Your task to perform on an android device: Find coffee shops on Maps Image 0: 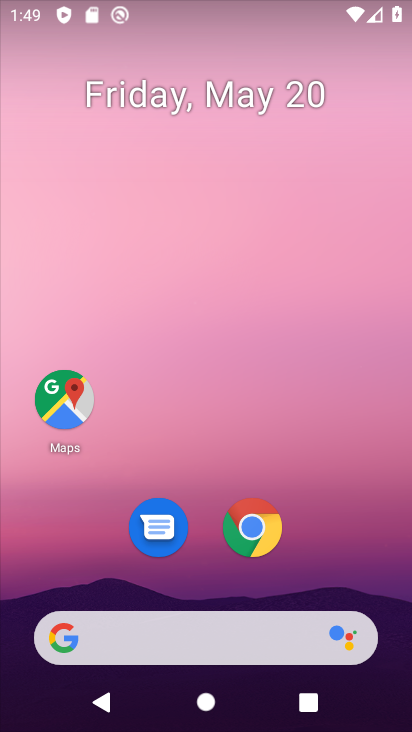
Step 0: click (75, 397)
Your task to perform on an android device: Find coffee shops on Maps Image 1: 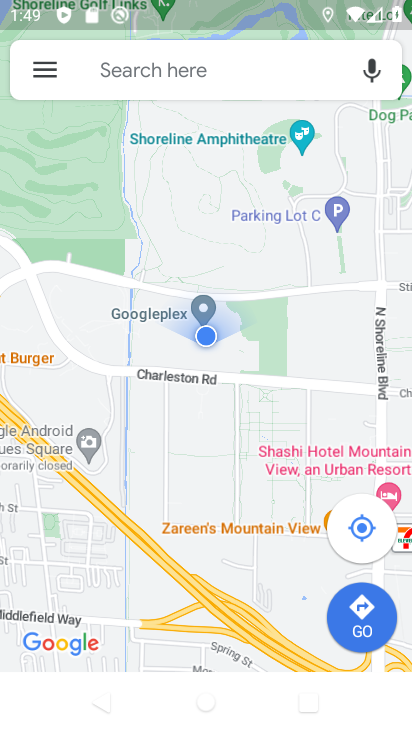
Step 1: click (178, 64)
Your task to perform on an android device: Find coffee shops on Maps Image 2: 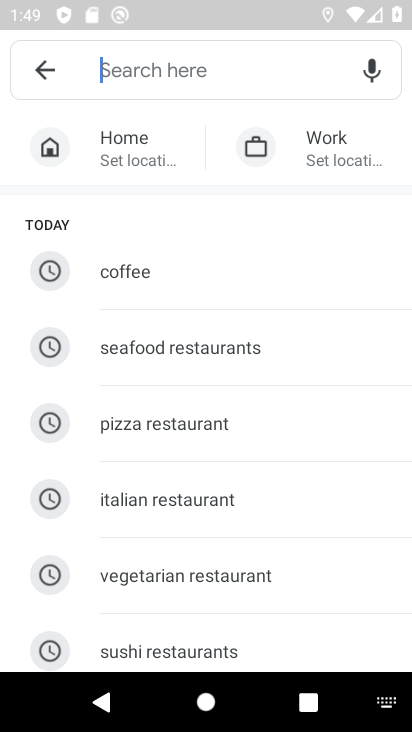
Step 2: click (129, 258)
Your task to perform on an android device: Find coffee shops on Maps Image 3: 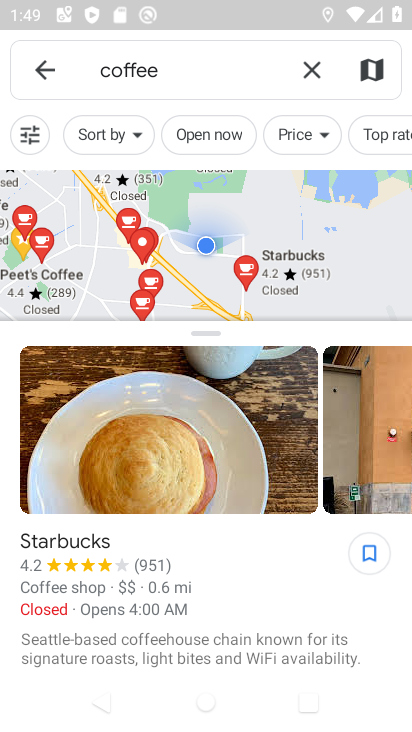
Step 3: task complete